Your task to perform on an android device: Open settings Image 0: 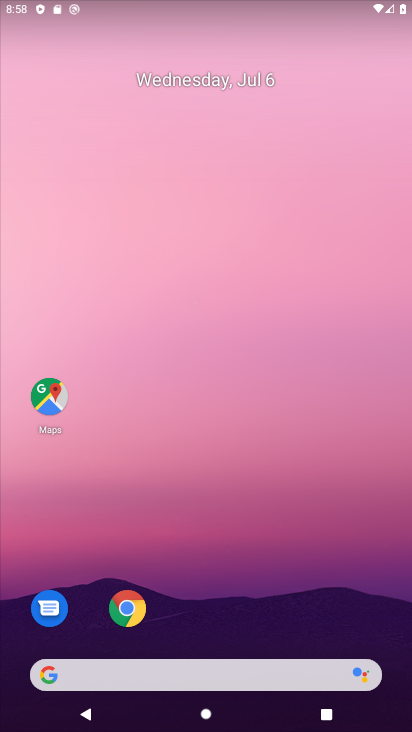
Step 0: drag from (256, 614) to (177, 126)
Your task to perform on an android device: Open settings Image 1: 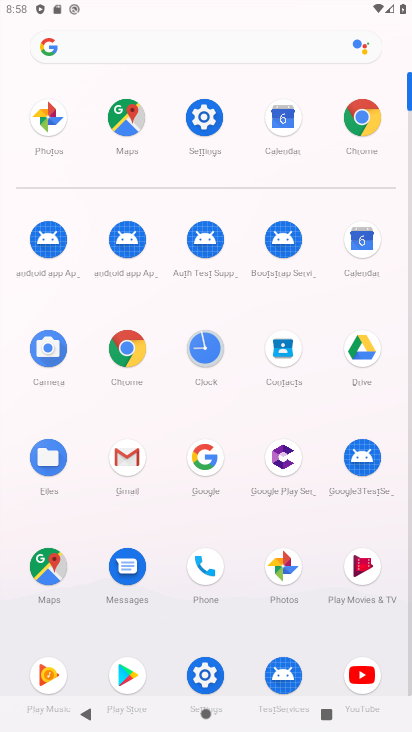
Step 1: click (212, 127)
Your task to perform on an android device: Open settings Image 2: 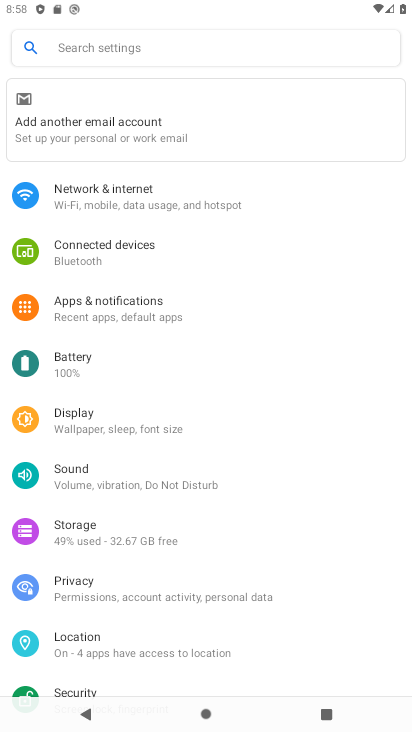
Step 2: task complete